Your task to perform on an android device: change notifications settings Image 0: 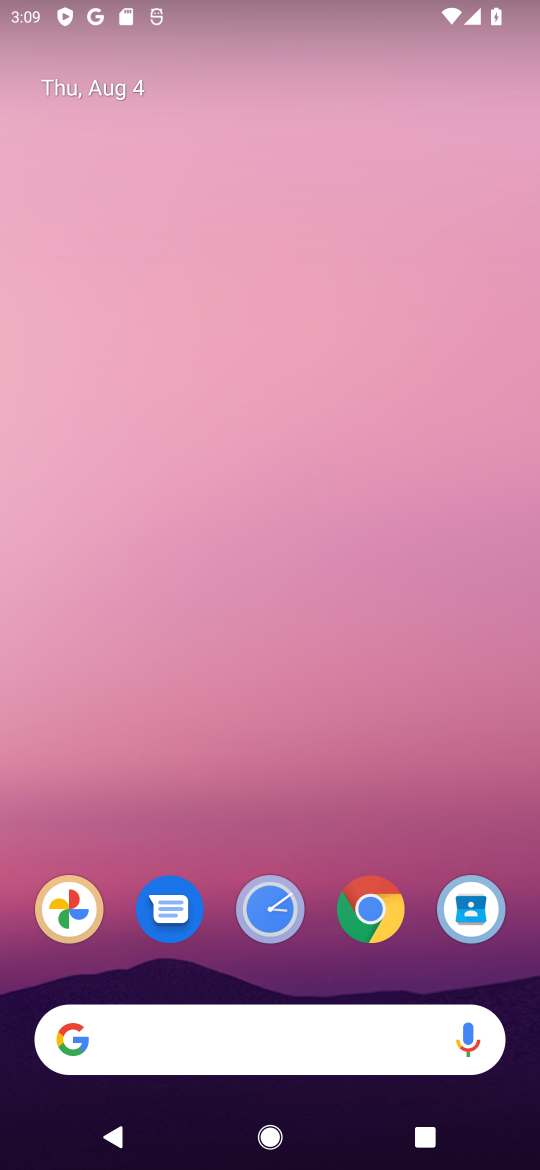
Step 0: drag from (192, 1050) to (374, 418)
Your task to perform on an android device: change notifications settings Image 1: 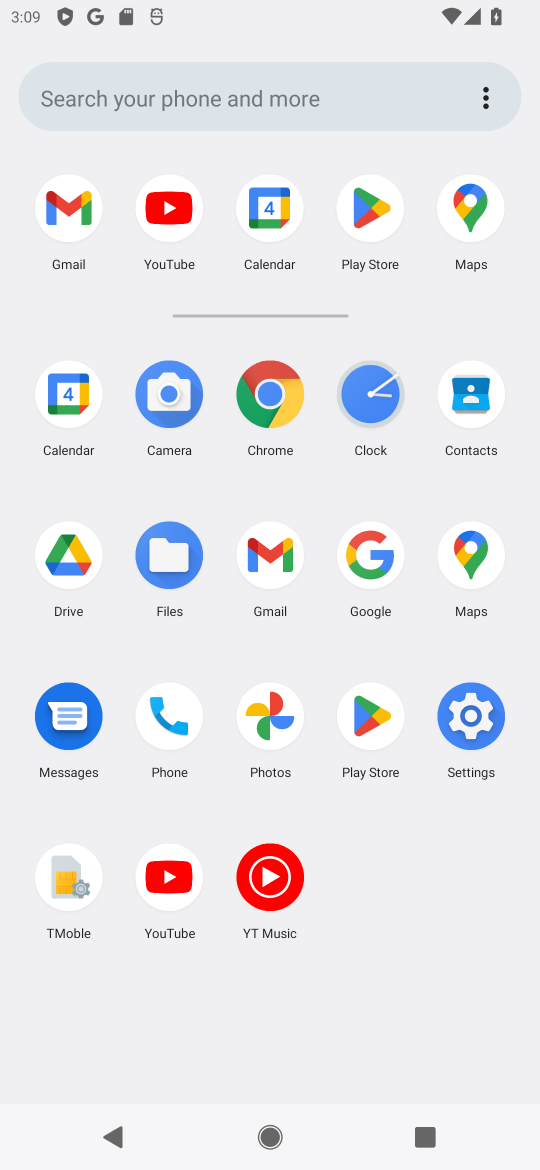
Step 1: click (476, 709)
Your task to perform on an android device: change notifications settings Image 2: 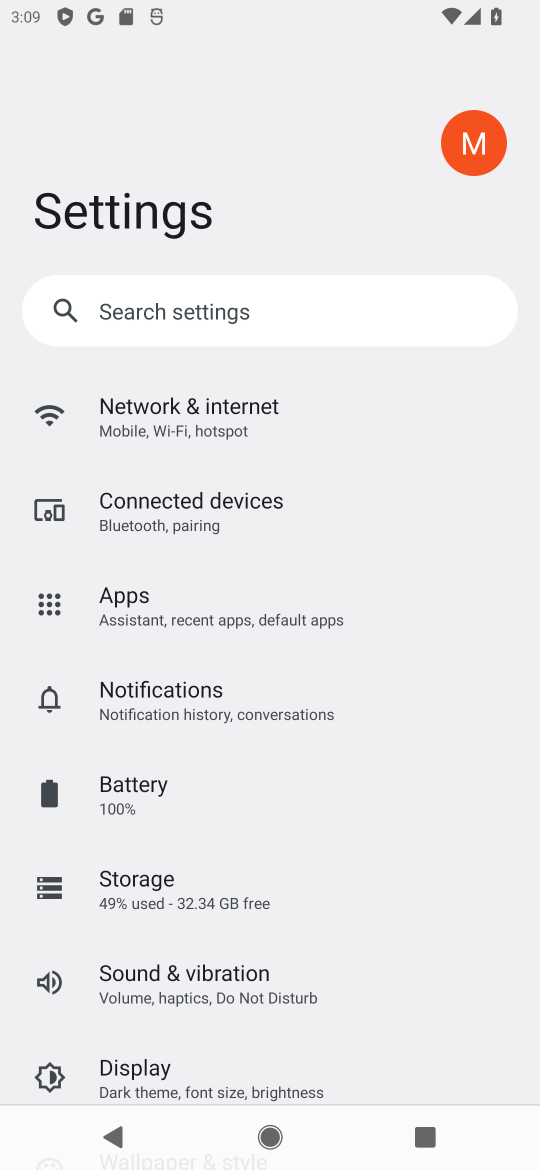
Step 2: click (204, 693)
Your task to perform on an android device: change notifications settings Image 3: 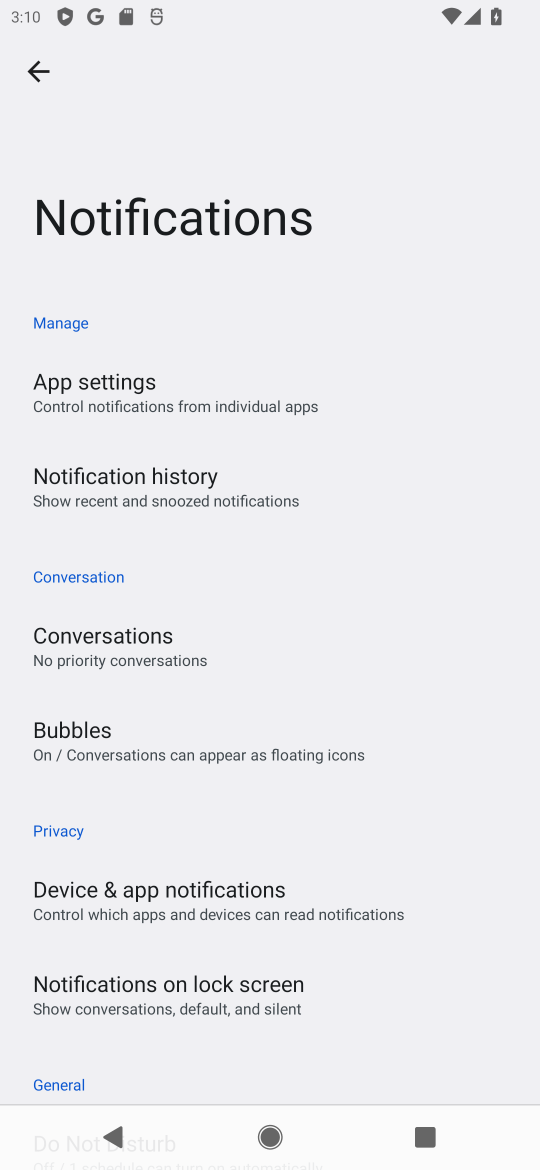
Step 3: click (167, 394)
Your task to perform on an android device: change notifications settings Image 4: 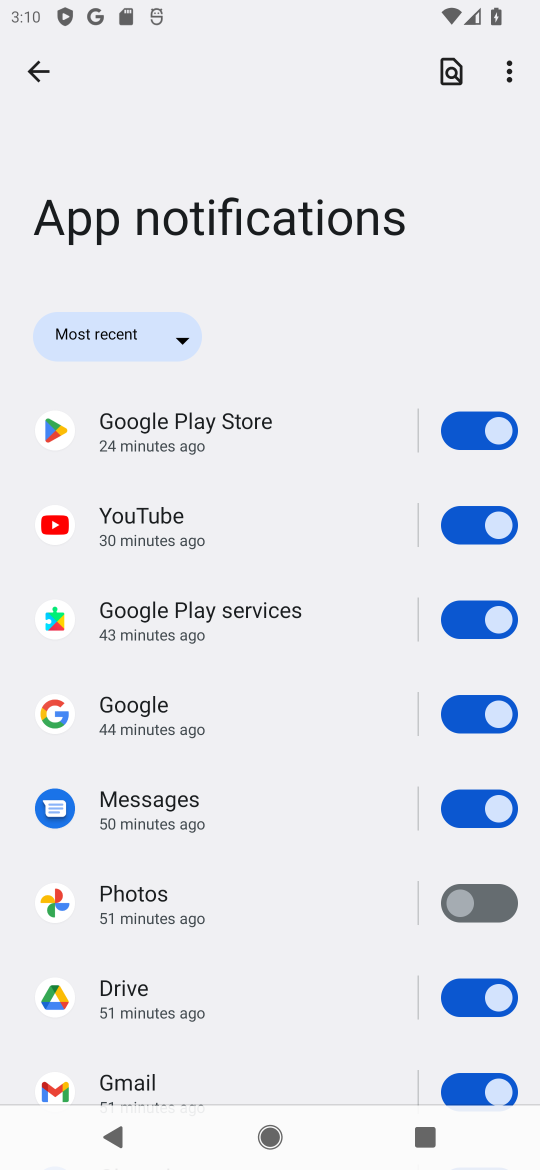
Step 4: drag from (258, 926) to (319, 571)
Your task to perform on an android device: change notifications settings Image 5: 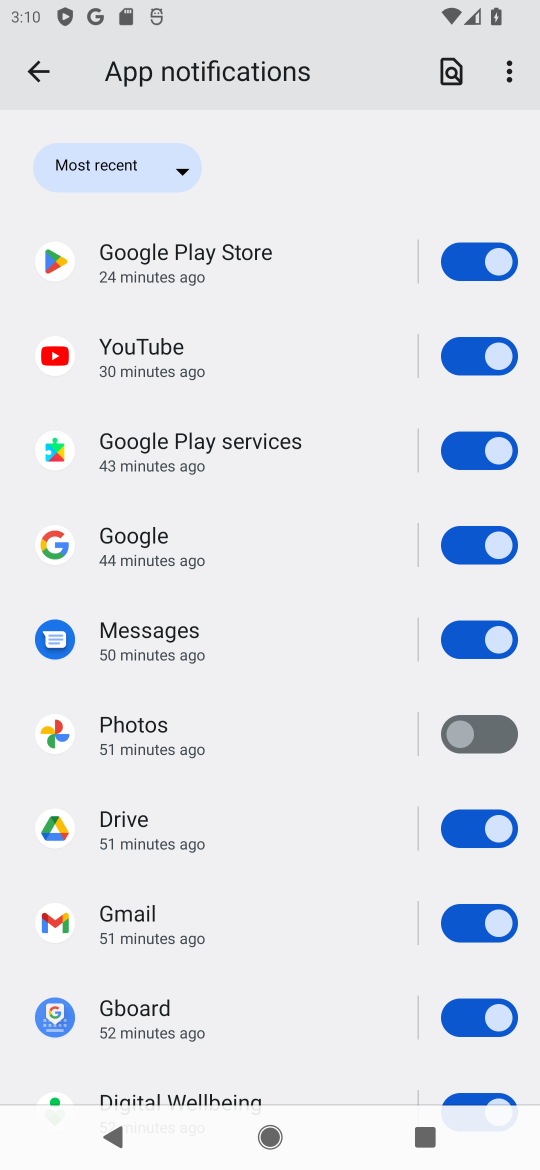
Step 5: click (471, 828)
Your task to perform on an android device: change notifications settings Image 6: 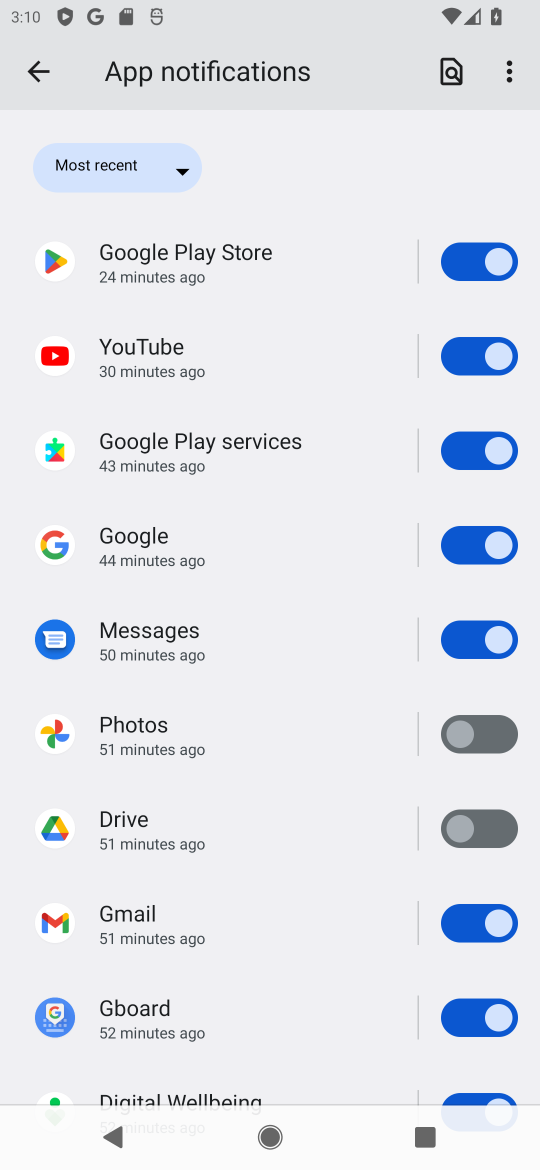
Step 6: task complete